Your task to perform on an android device: turn off smart reply in the gmail app Image 0: 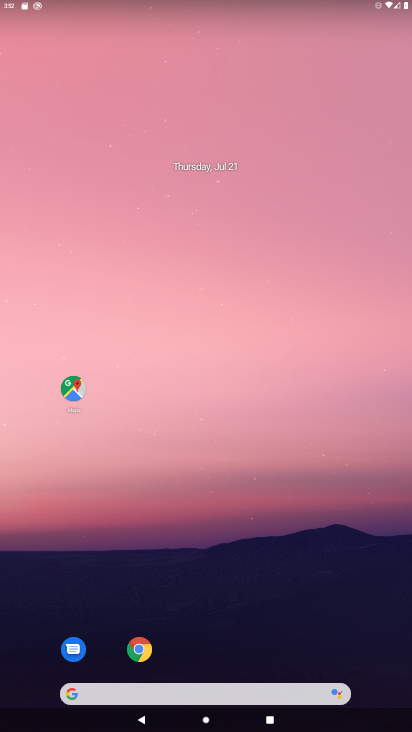
Step 0: drag from (269, 631) to (185, 23)
Your task to perform on an android device: turn off smart reply in the gmail app Image 1: 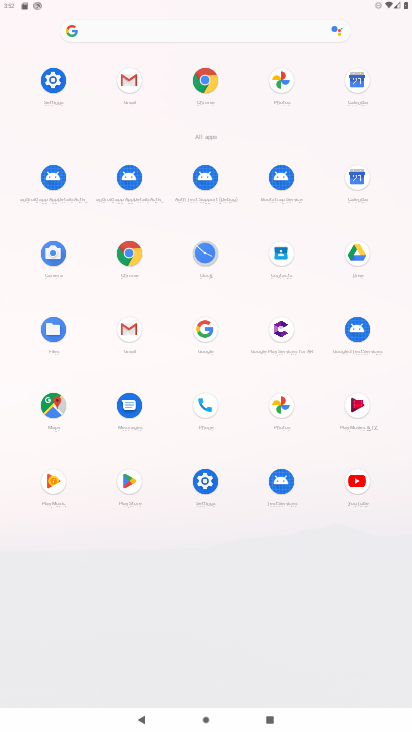
Step 1: click (128, 63)
Your task to perform on an android device: turn off smart reply in the gmail app Image 2: 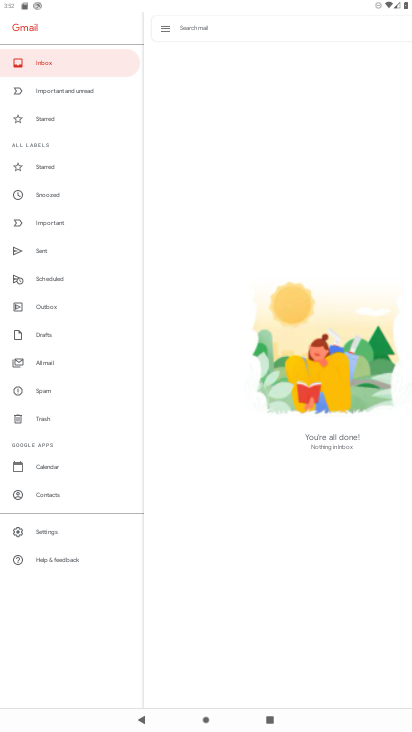
Step 2: click (54, 537)
Your task to perform on an android device: turn off smart reply in the gmail app Image 3: 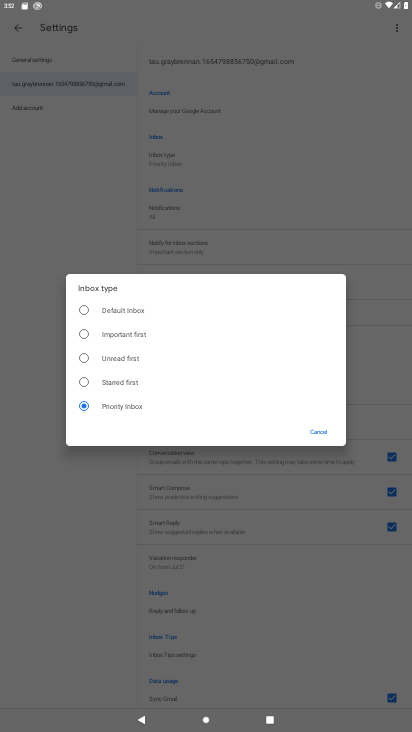
Step 3: click (46, 214)
Your task to perform on an android device: turn off smart reply in the gmail app Image 4: 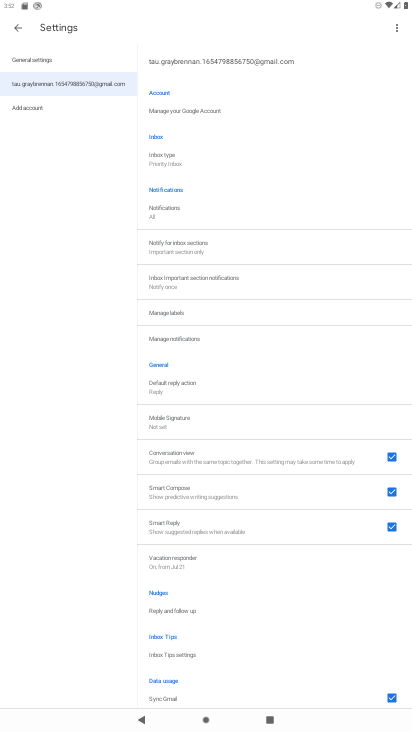
Step 4: click (391, 528)
Your task to perform on an android device: turn off smart reply in the gmail app Image 5: 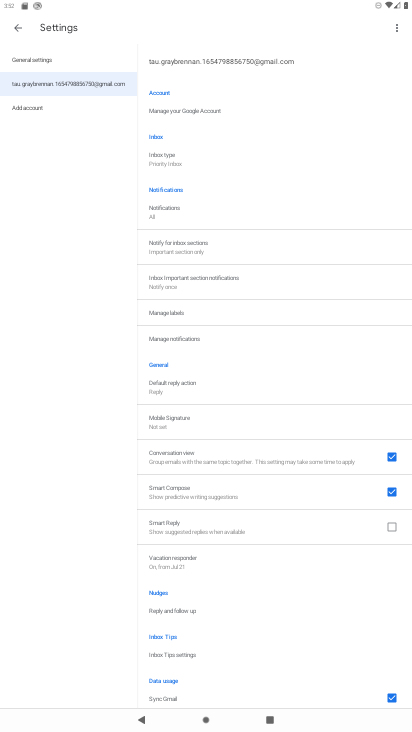
Step 5: task complete